Your task to perform on an android device: change keyboard looks Image 0: 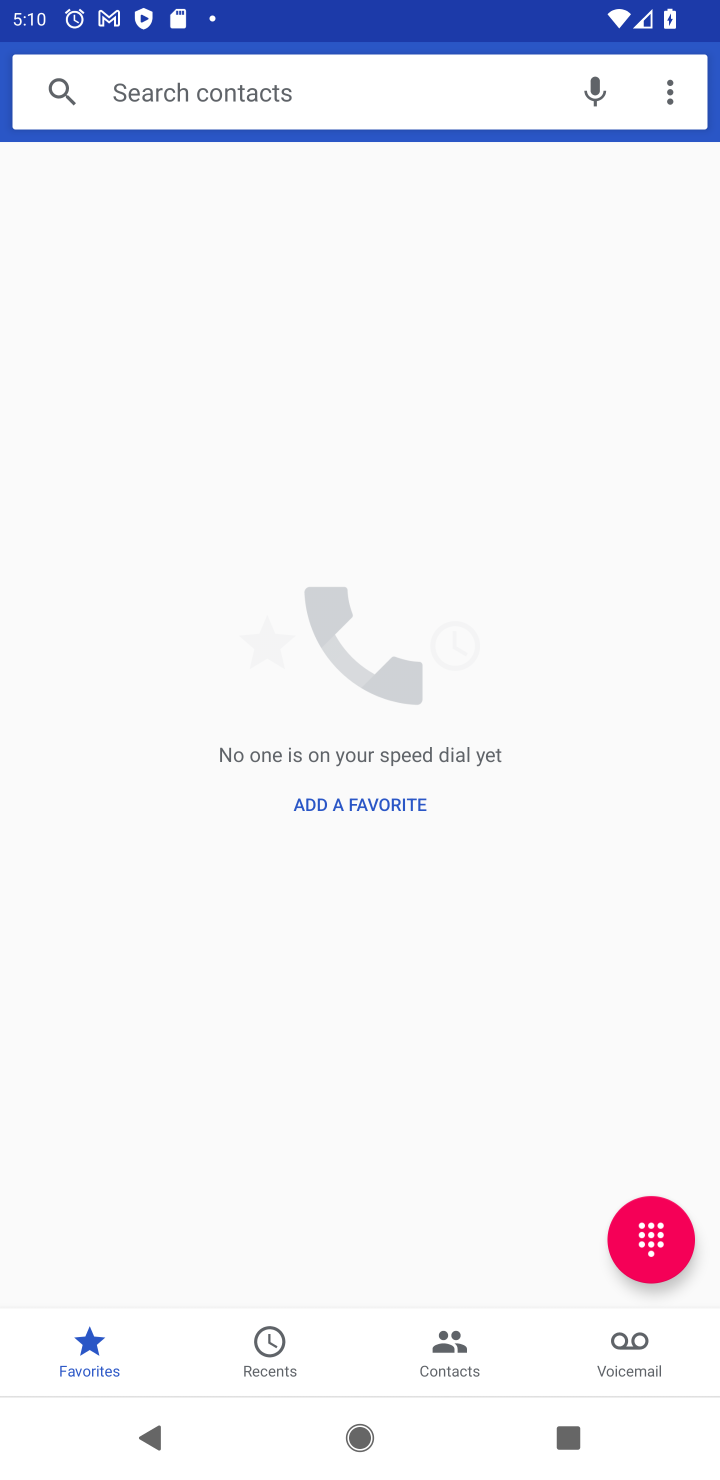
Step 0: press home button
Your task to perform on an android device: change keyboard looks Image 1: 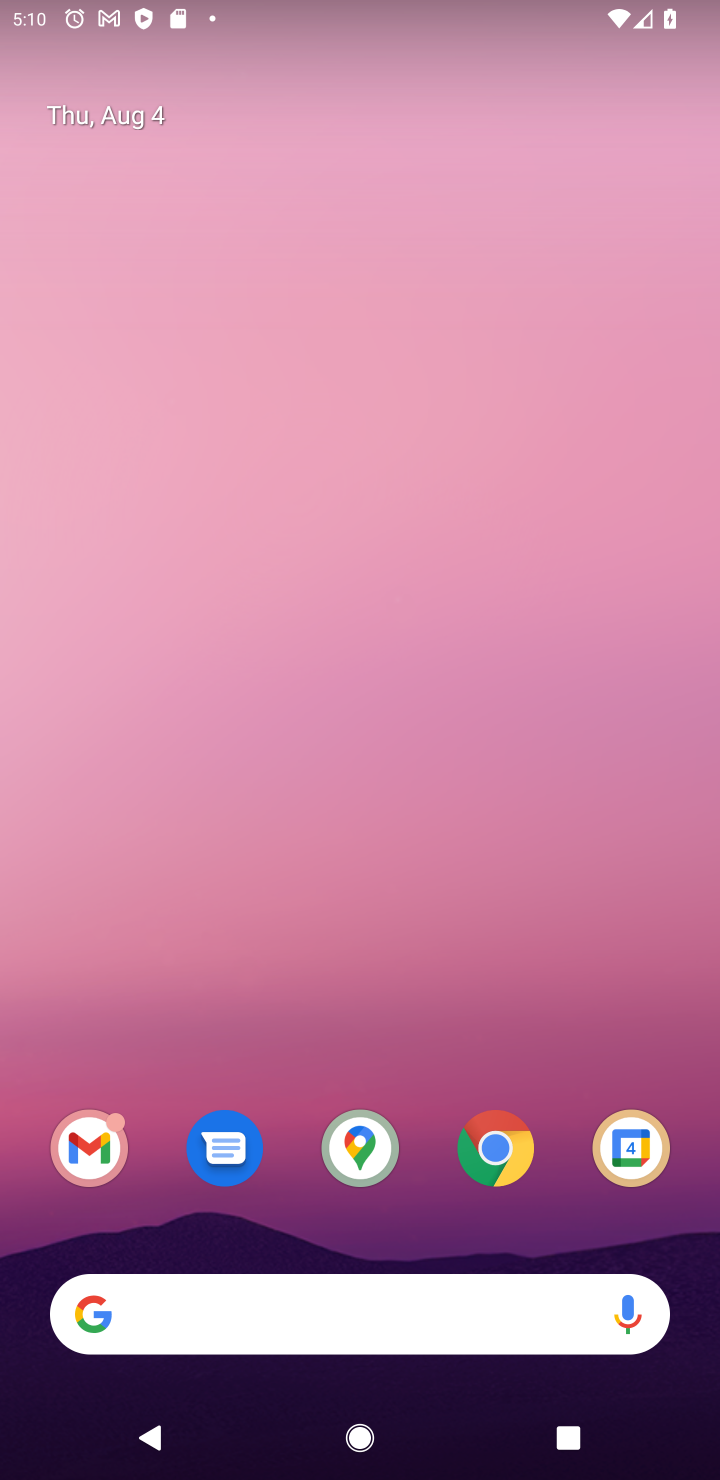
Step 1: drag from (574, 1196) to (530, 272)
Your task to perform on an android device: change keyboard looks Image 2: 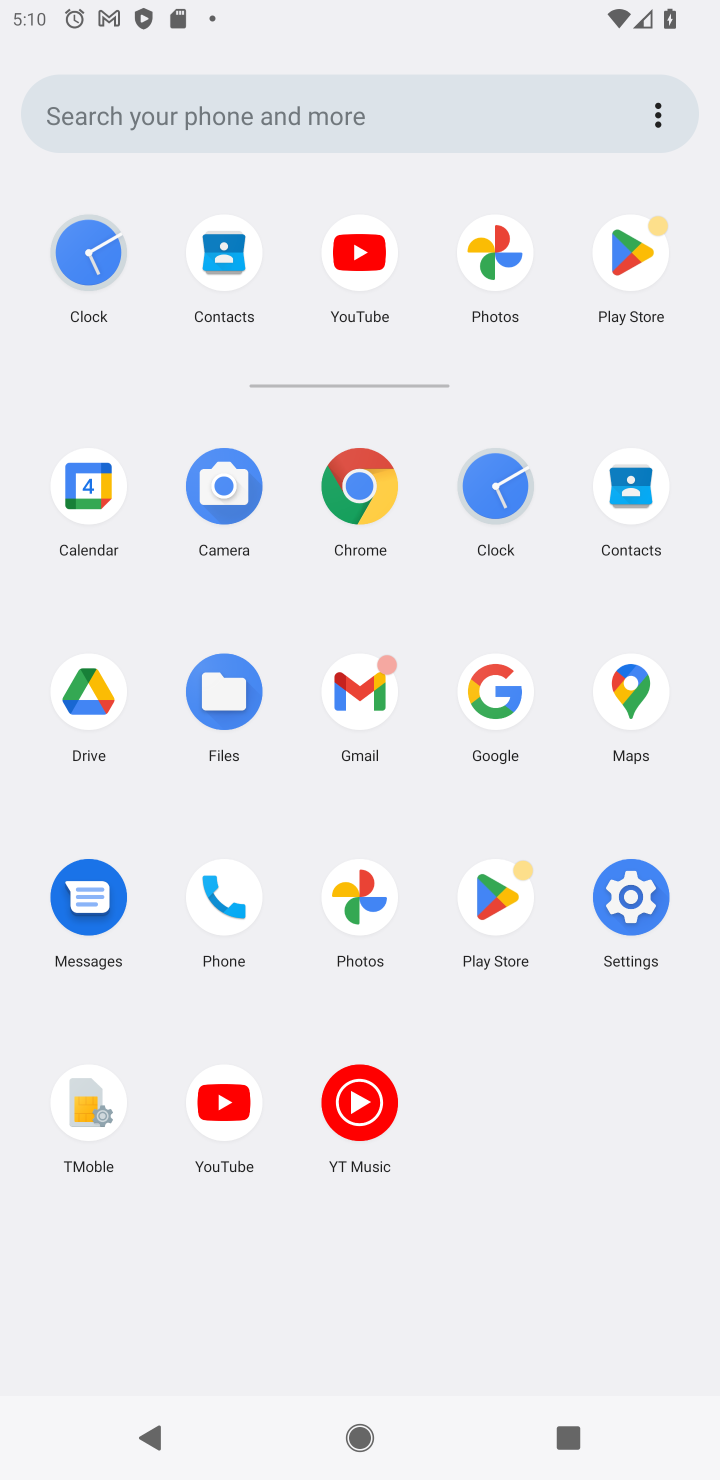
Step 2: click (630, 901)
Your task to perform on an android device: change keyboard looks Image 3: 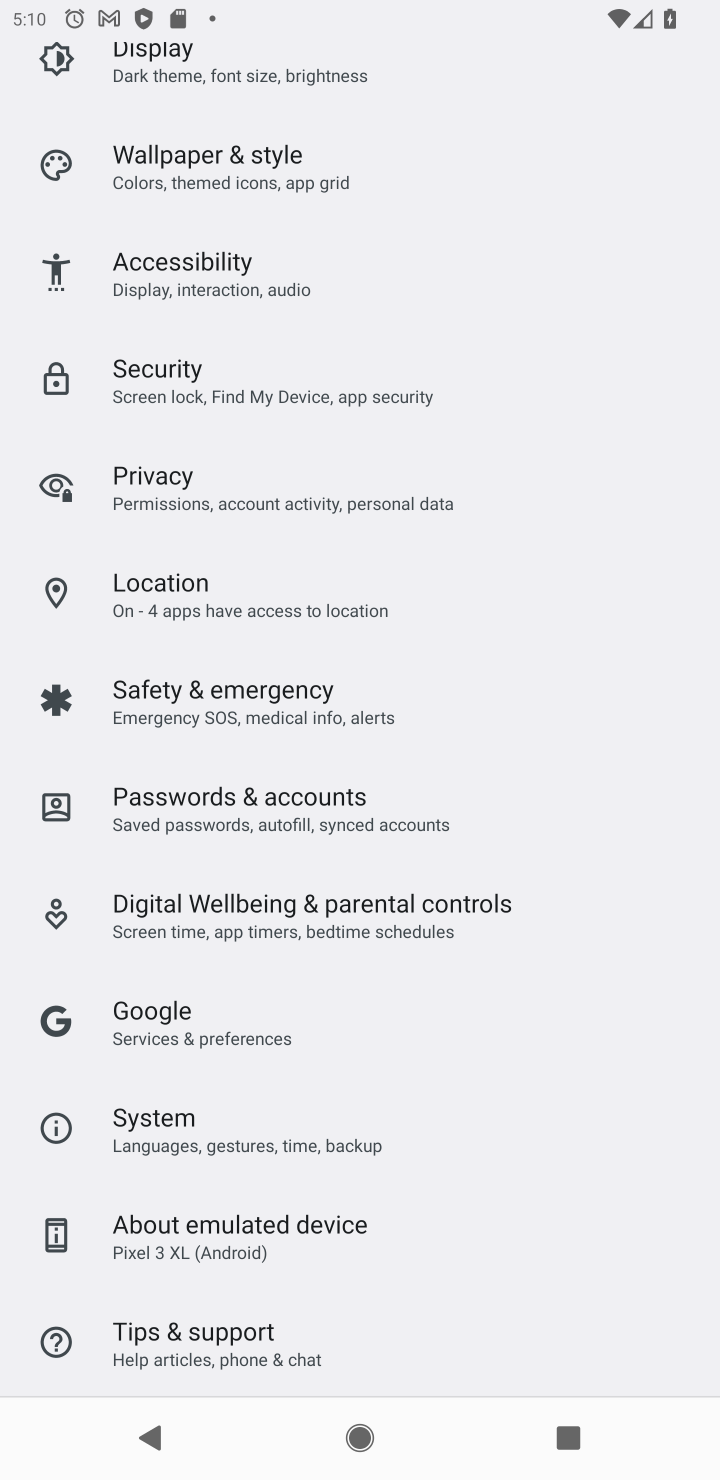
Step 3: click (170, 1124)
Your task to perform on an android device: change keyboard looks Image 4: 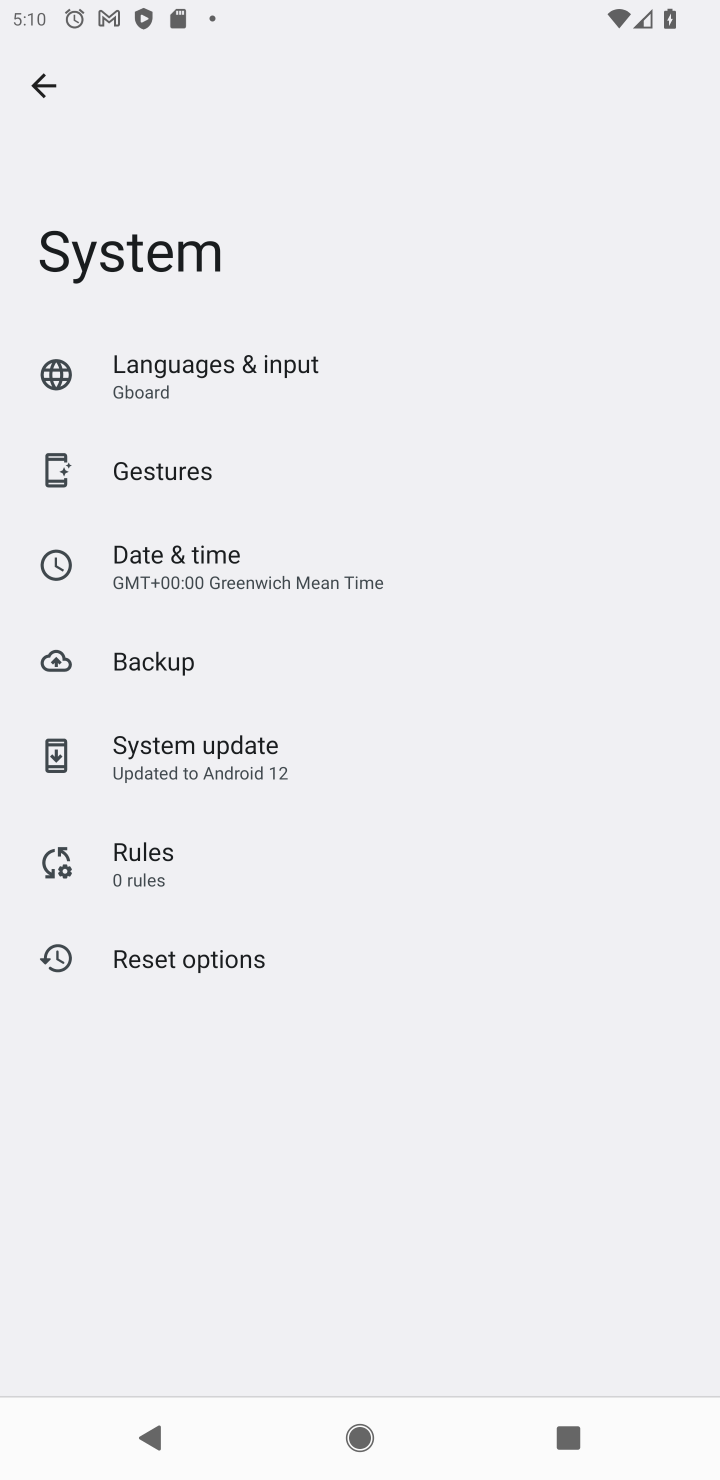
Step 4: click (150, 384)
Your task to perform on an android device: change keyboard looks Image 5: 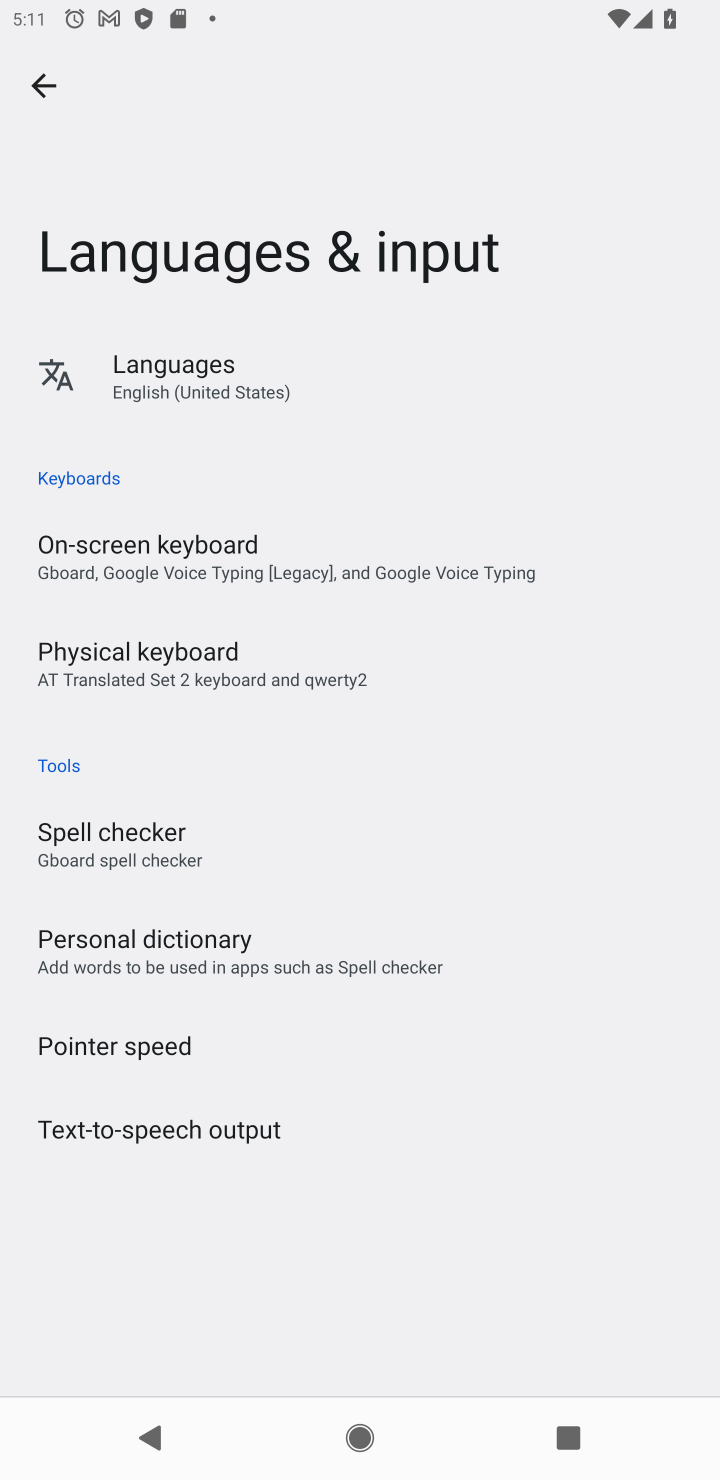
Step 5: click (110, 682)
Your task to perform on an android device: change keyboard looks Image 6: 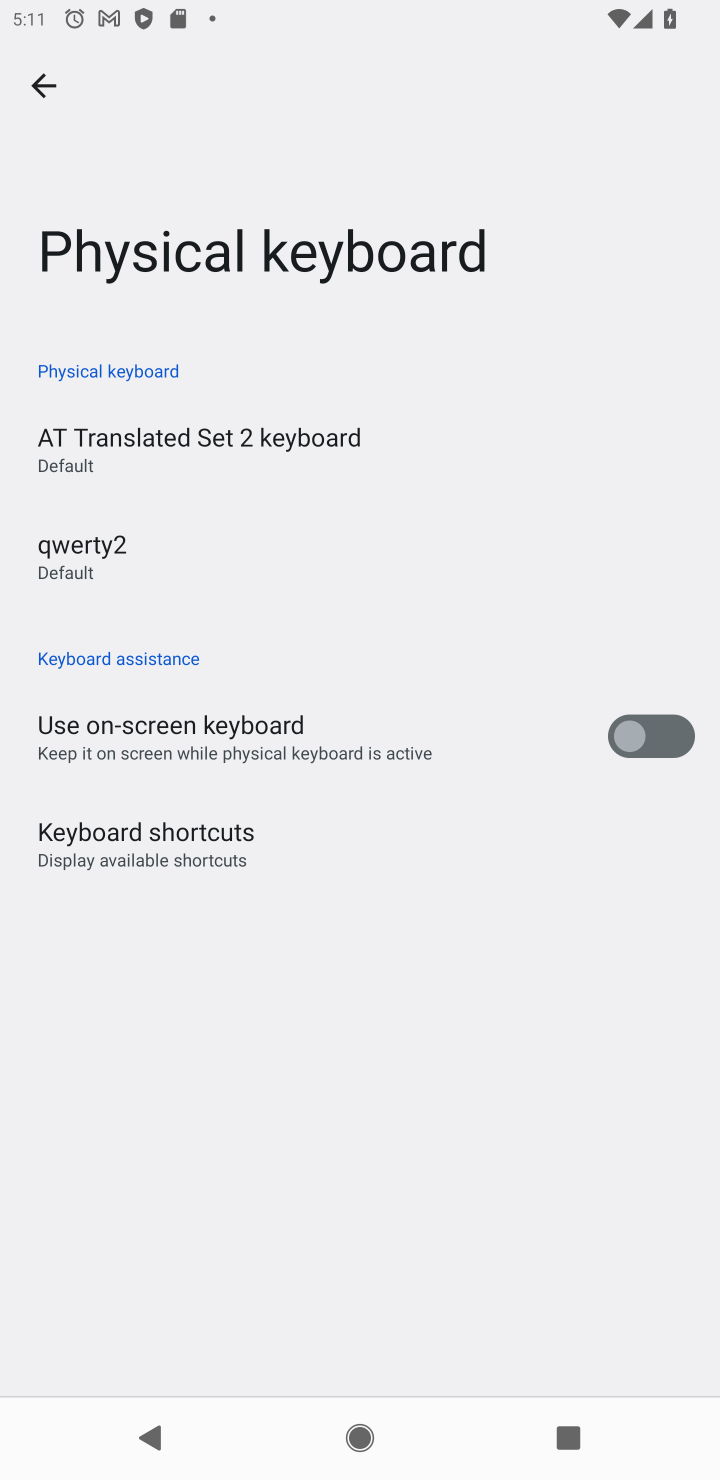
Step 6: click (67, 535)
Your task to perform on an android device: change keyboard looks Image 7: 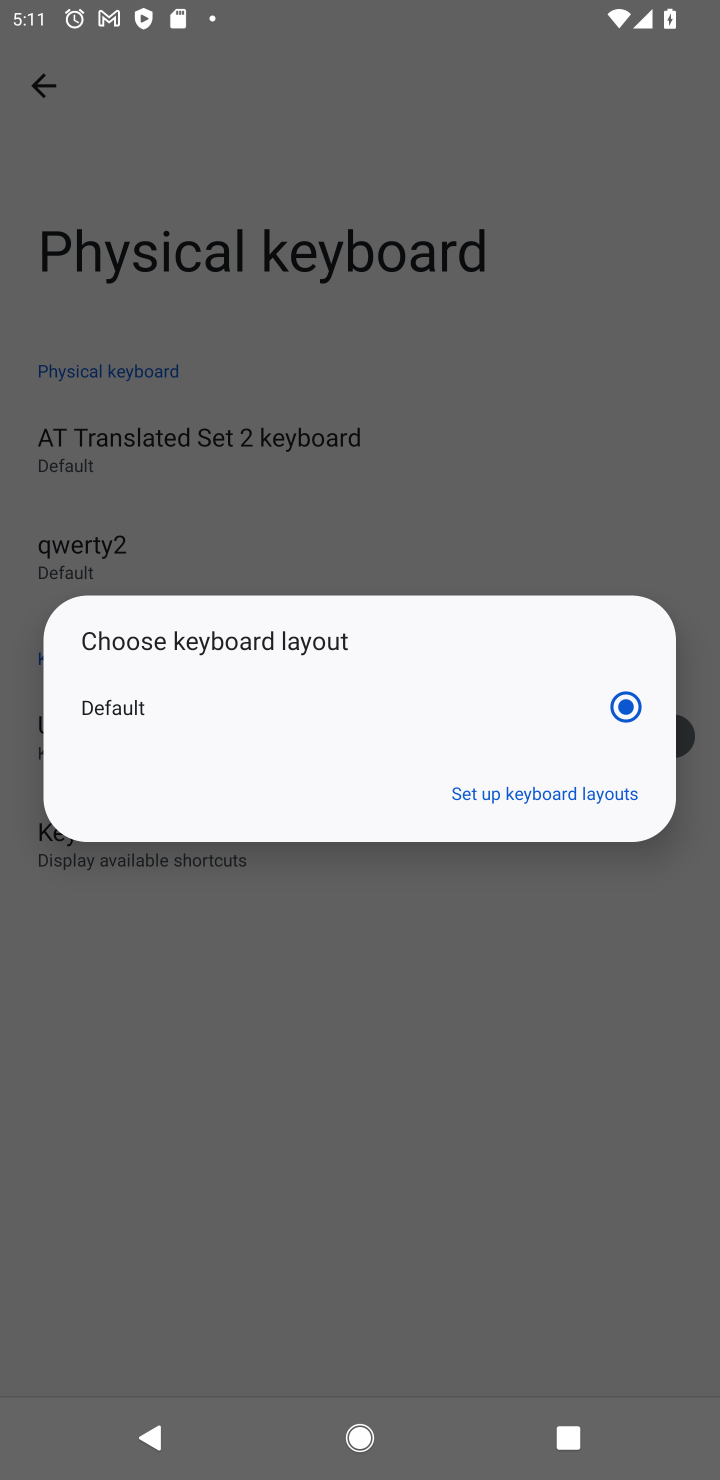
Step 7: click (535, 786)
Your task to perform on an android device: change keyboard looks Image 8: 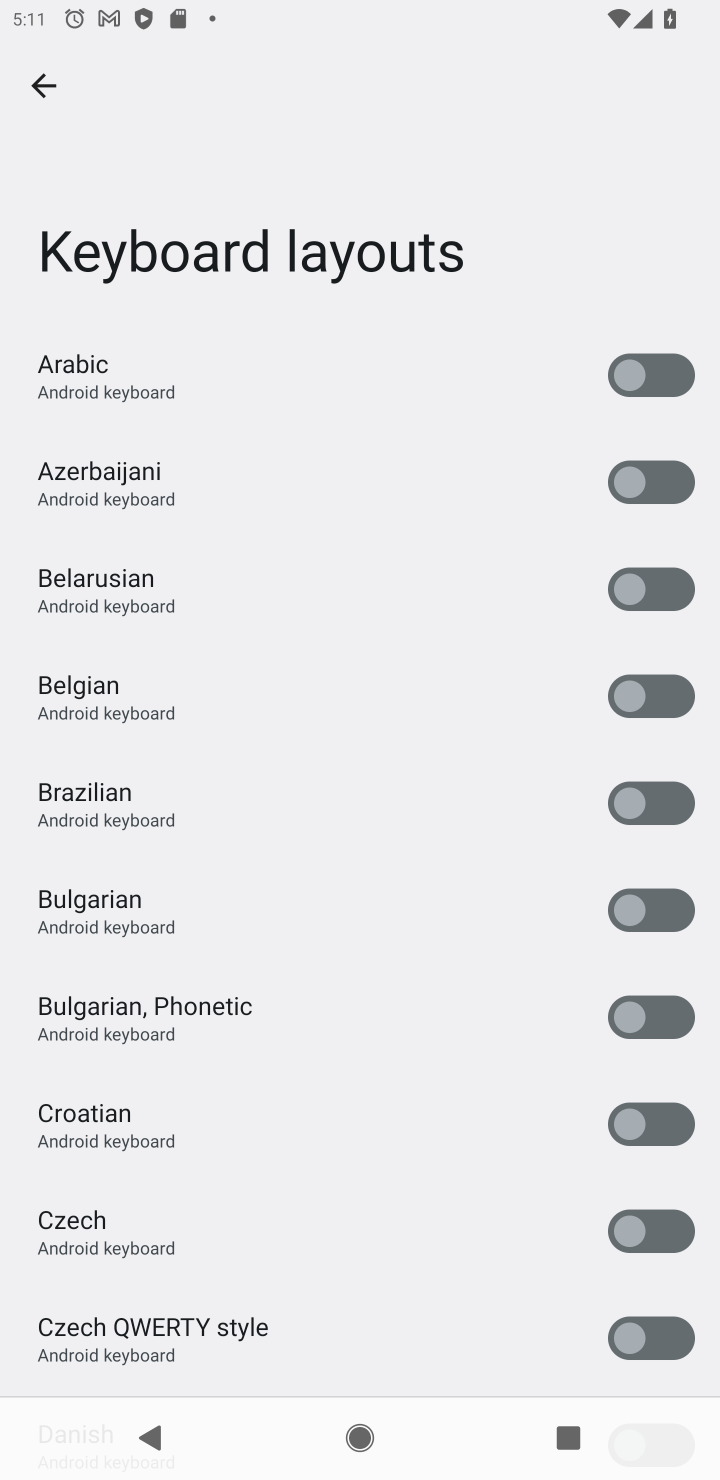
Step 8: drag from (529, 1294) to (570, 415)
Your task to perform on an android device: change keyboard looks Image 9: 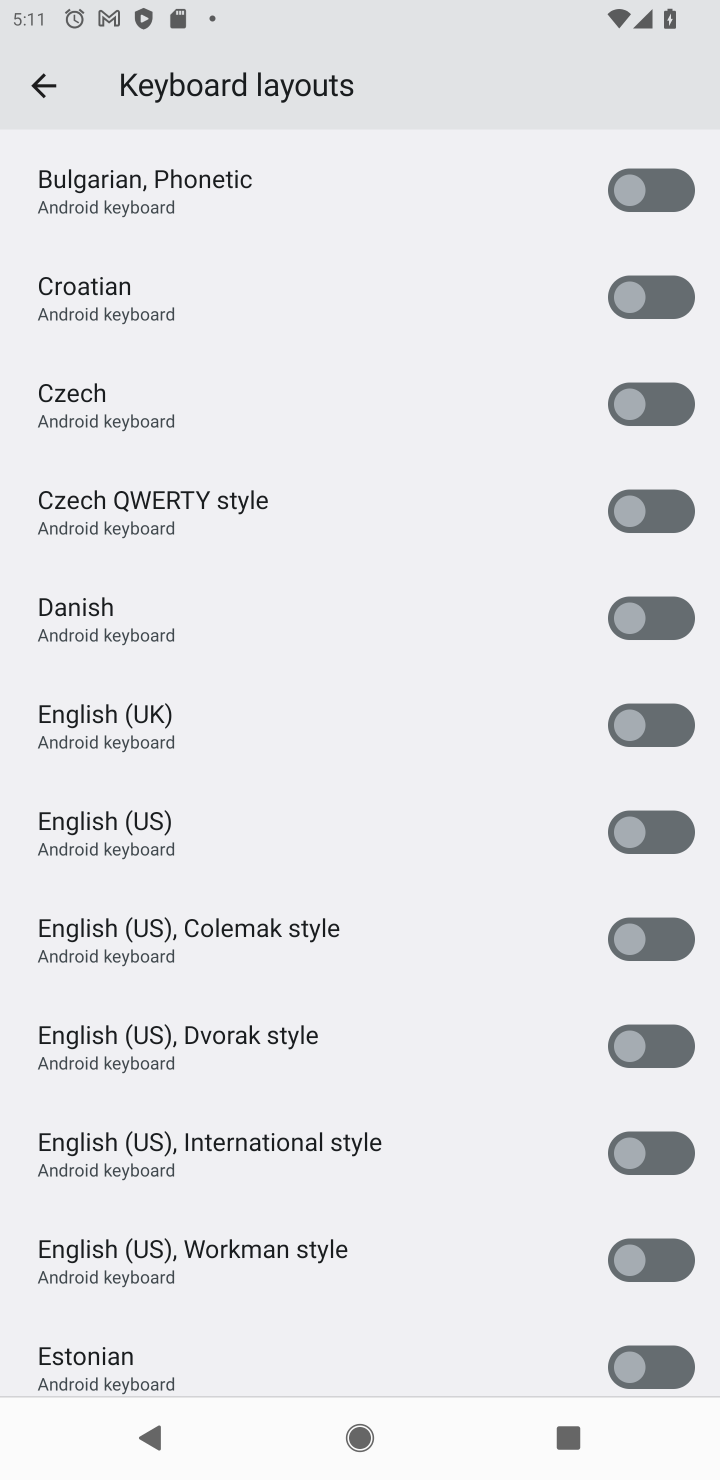
Step 9: click (663, 841)
Your task to perform on an android device: change keyboard looks Image 10: 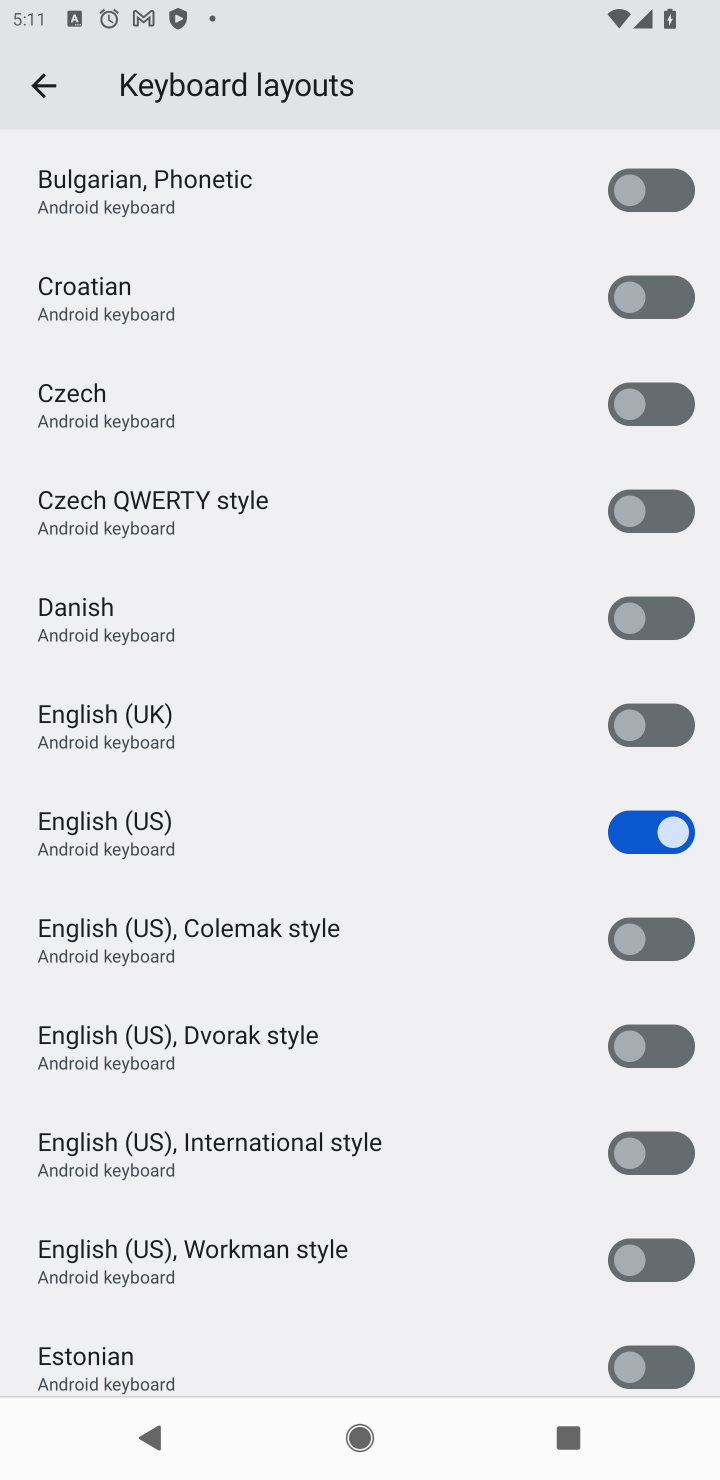
Step 10: task complete